Your task to perform on an android device: set an alarm Image 0: 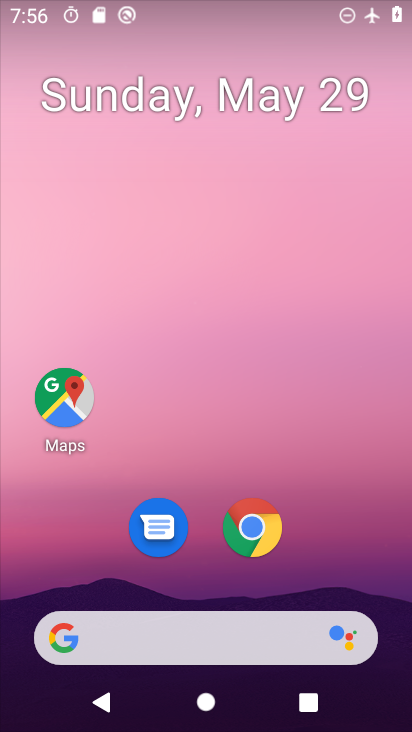
Step 0: drag from (385, 629) to (328, 28)
Your task to perform on an android device: set an alarm Image 1: 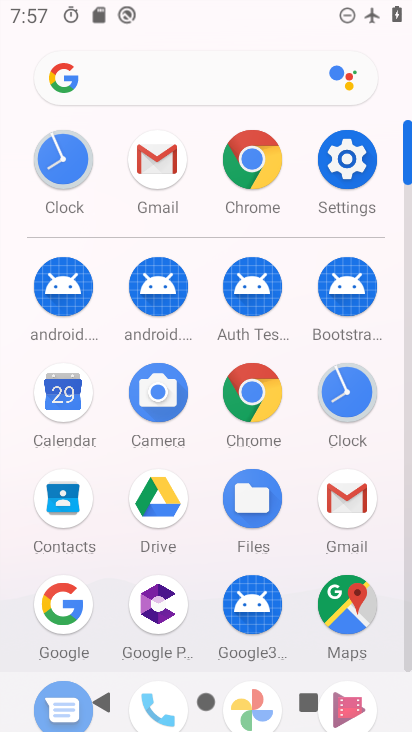
Step 1: click (359, 404)
Your task to perform on an android device: set an alarm Image 2: 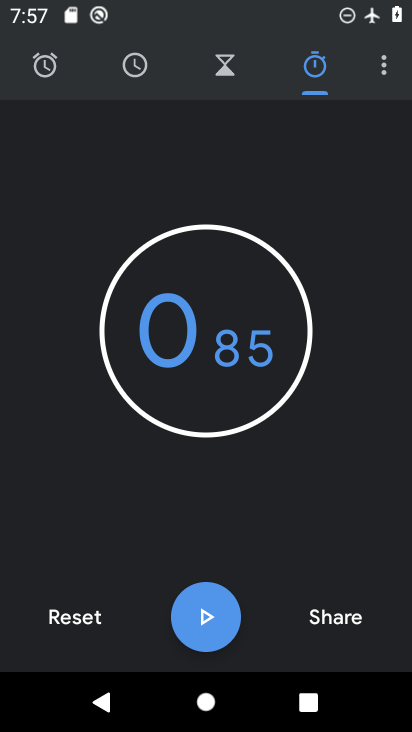
Step 2: click (51, 70)
Your task to perform on an android device: set an alarm Image 3: 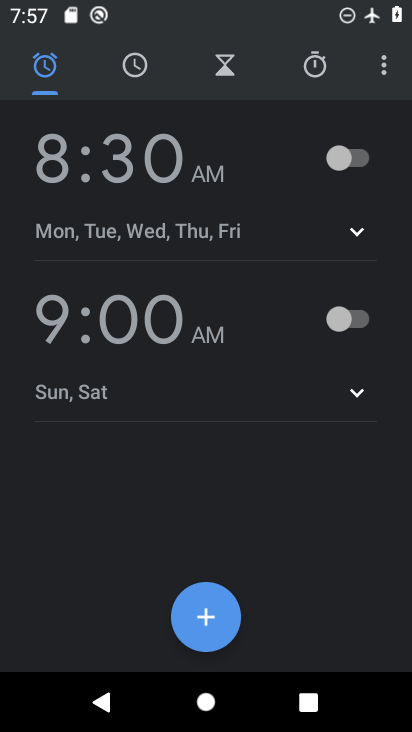
Step 3: click (363, 180)
Your task to perform on an android device: set an alarm Image 4: 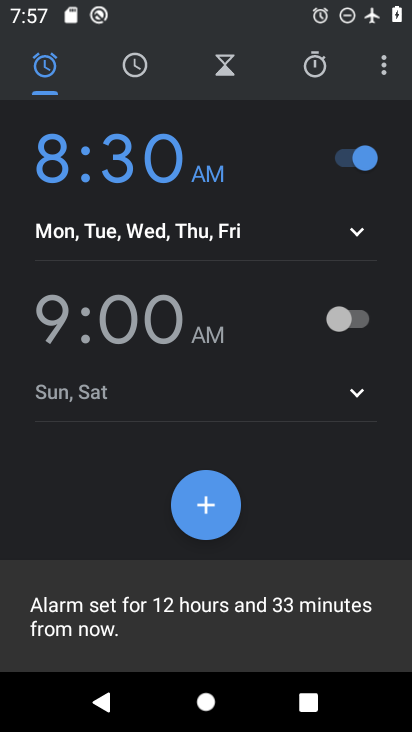
Step 4: task complete